Your task to perform on an android device: Open Youtube and go to the subscriptions tab Image 0: 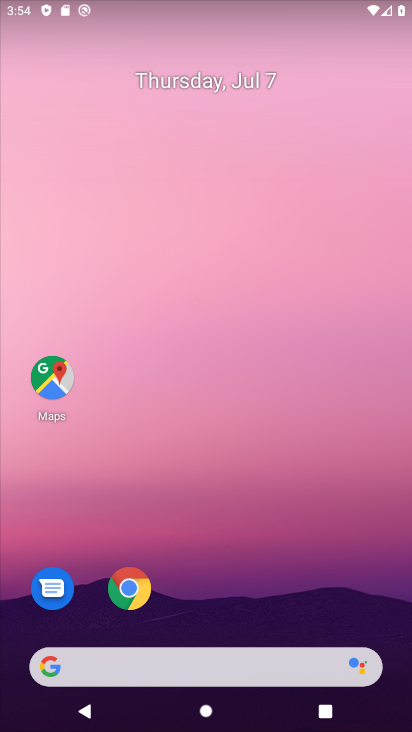
Step 0: press home button
Your task to perform on an android device: Open Youtube and go to the subscriptions tab Image 1: 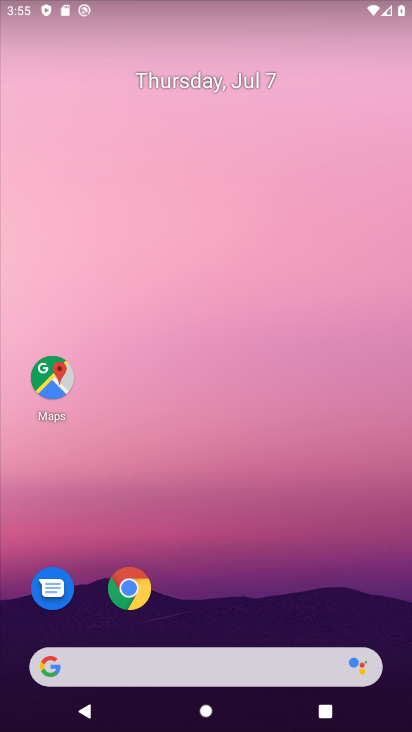
Step 1: drag from (234, 622) to (277, 216)
Your task to perform on an android device: Open Youtube and go to the subscriptions tab Image 2: 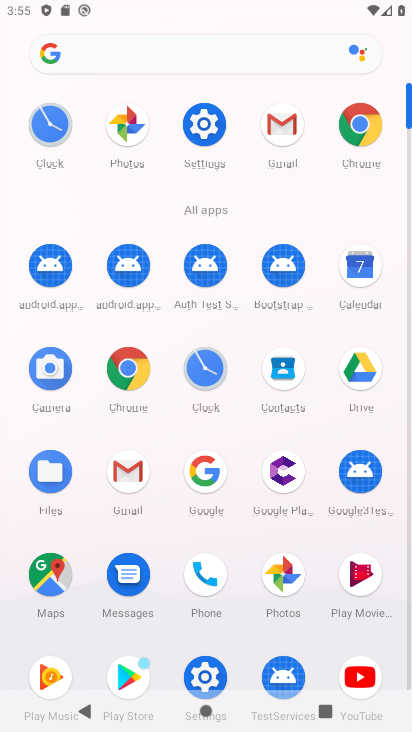
Step 2: click (355, 685)
Your task to perform on an android device: Open Youtube and go to the subscriptions tab Image 3: 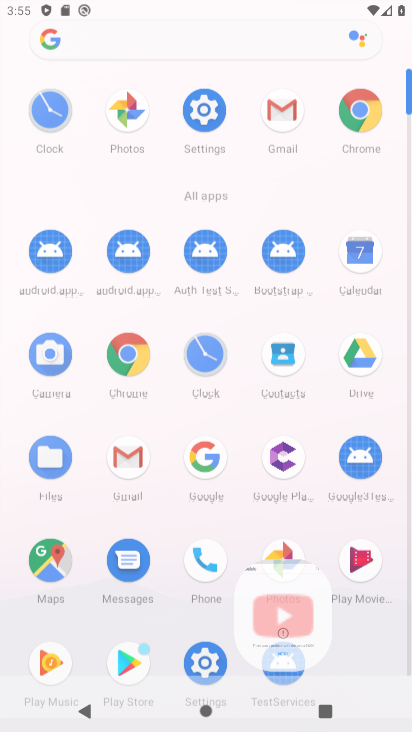
Step 3: click (355, 685)
Your task to perform on an android device: Open Youtube and go to the subscriptions tab Image 4: 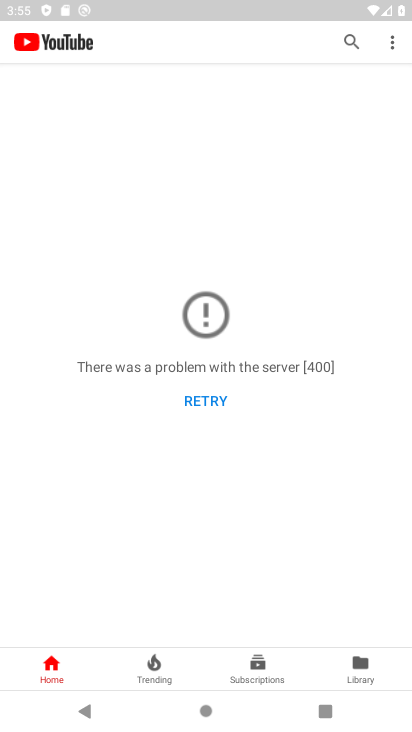
Step 4: click (191, 394)
Your task to perform on an android device: Open Youtube and go to the subscriptions tab Image 5: 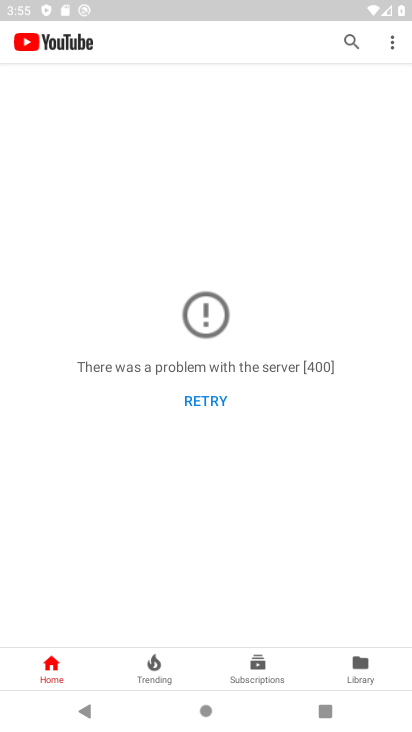
Step 5: click (200, 400)
Your task to perform on an android device: Open Youtube and go to the subscriptions tab Image 6: 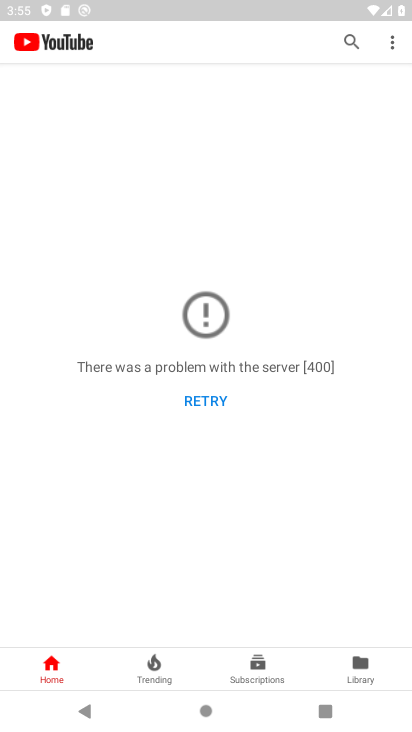
Step 6: task complete